Your task to perform on an android device: Is it going to rain this weekend? Image 0: 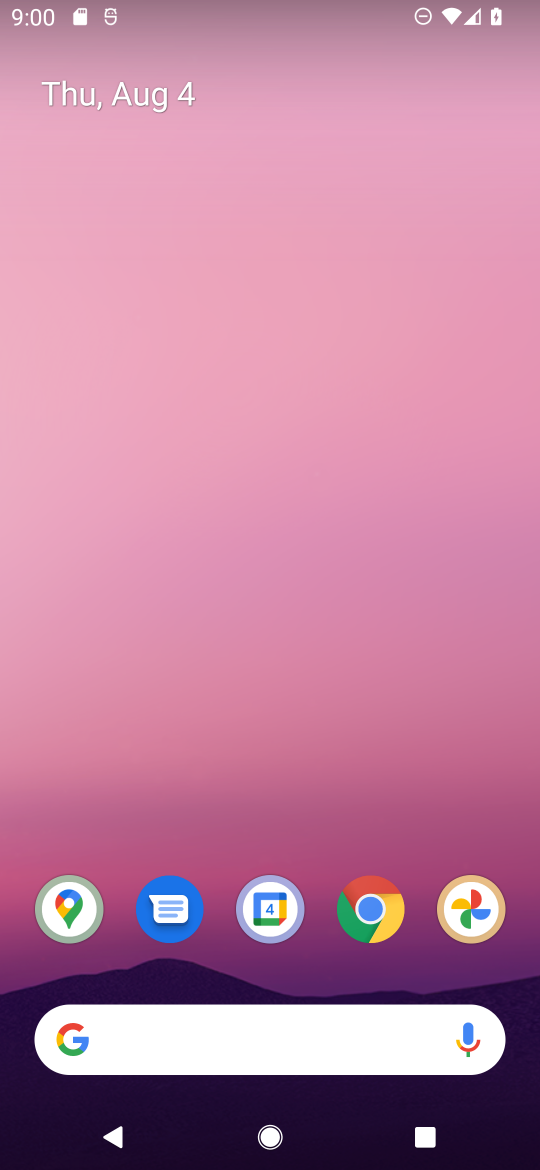
Step 0: press home button
Your task to perform on an android device: Is it going to rain this weekend? Image 1: 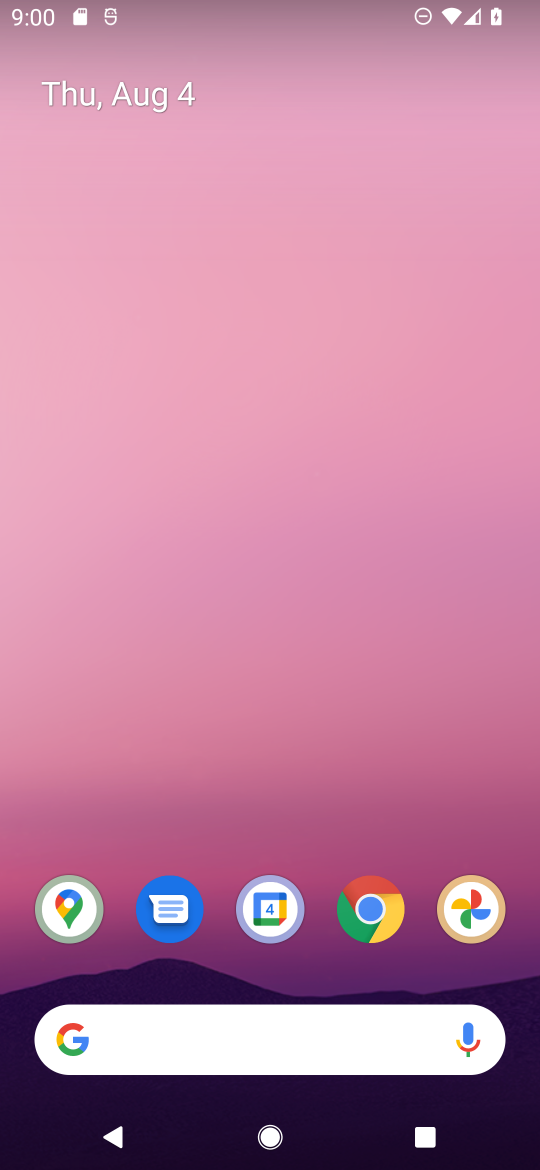
Step 1: click (294, 1041)
Your task to perform on an android device: Is it going to rain this weekend? Image 2: 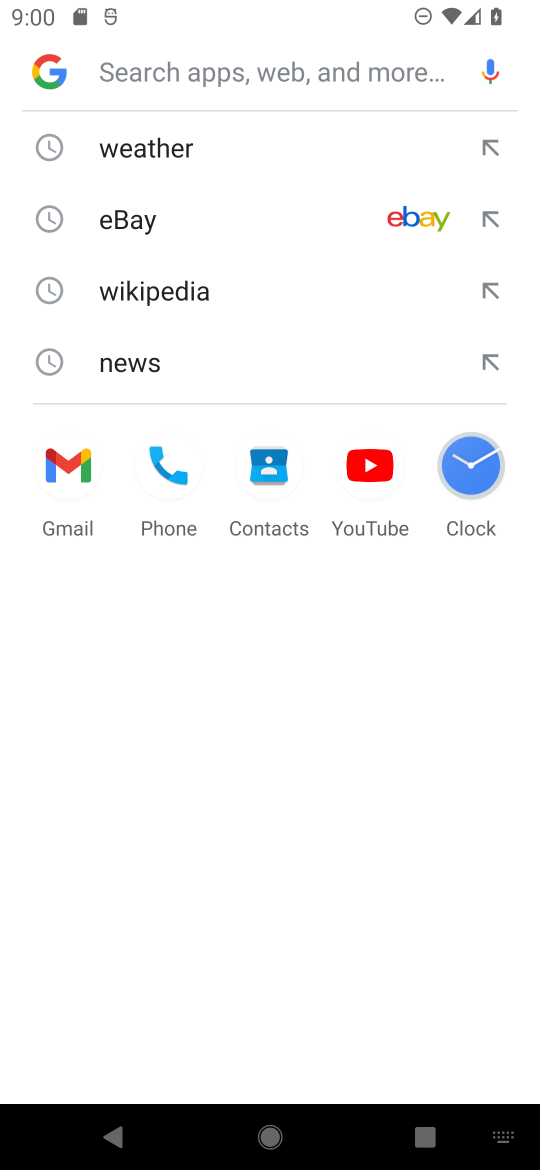
Step 2: click (161, 148)
Your task to perform on an android device: Is it going to rain this weekend? Image 3: 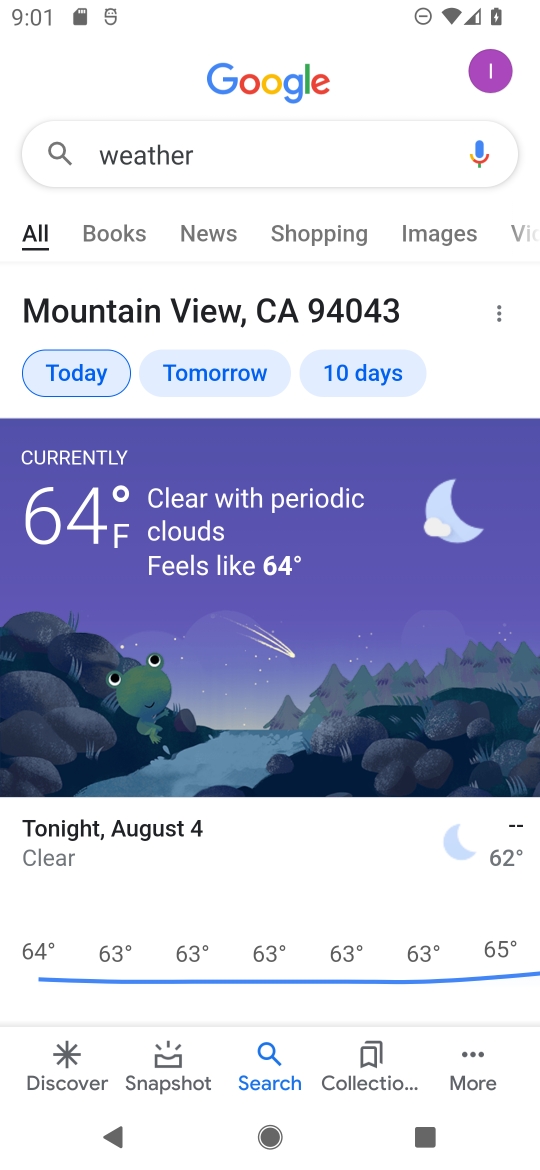
Step 3: click (367, 371)
Your task to perform on an android device: Is it going to rain this weekend? Image 4: 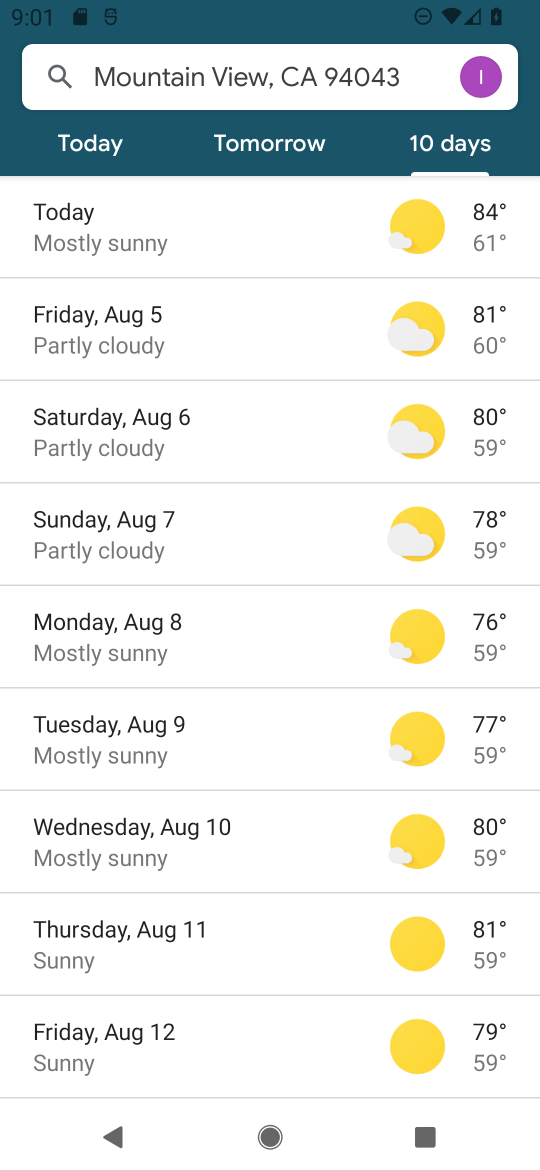
Step 4: click (176, 430)
Your task to perform on an android device: Is it going to rain this weekend? Image 5: 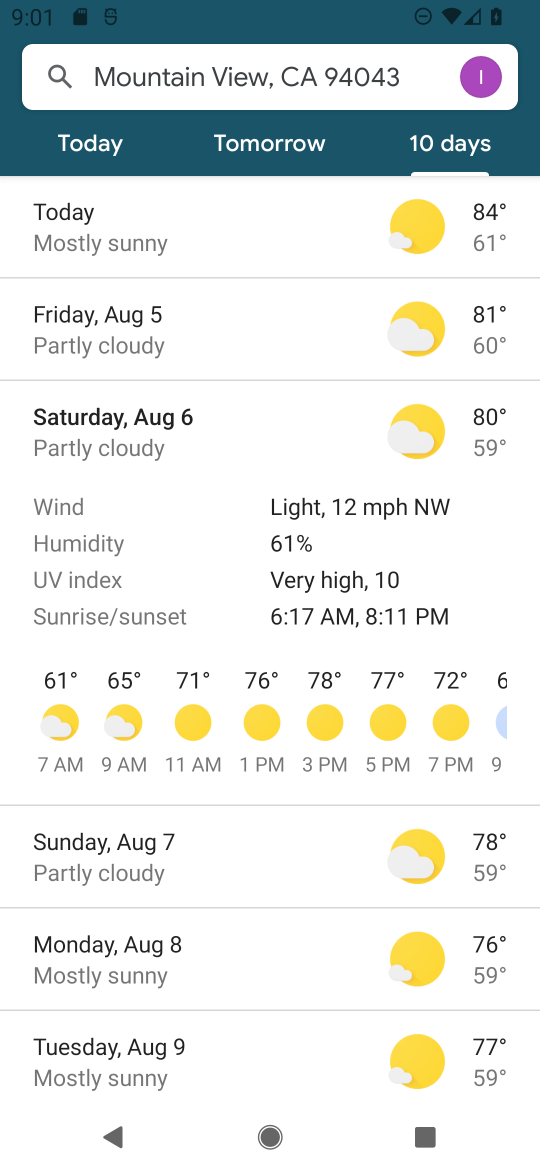
Step 5: task complete